Your task to perform on an android device: Open Chrome and go to the settings page Image 0: 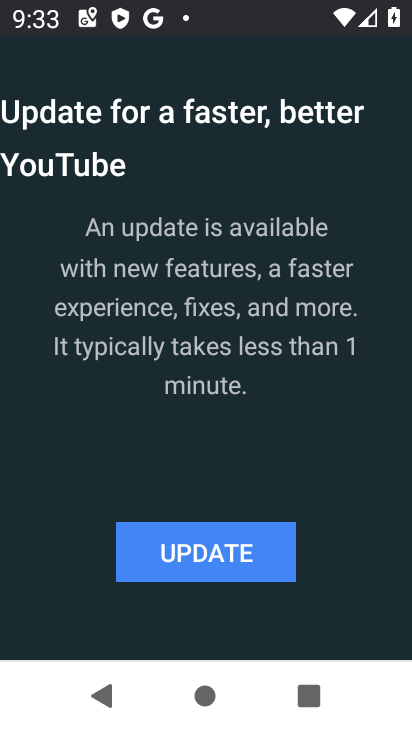
Step 0: press back button
Your task to perform on an android device: Open Chrome and go to the settings page Image 1: 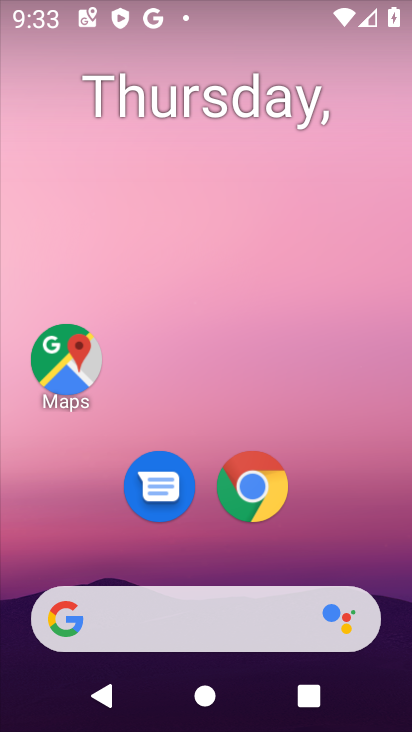
Step 1: click (253, 494)
Your task to perform on an android device: Open Chrome and go to the settings page Image 2: 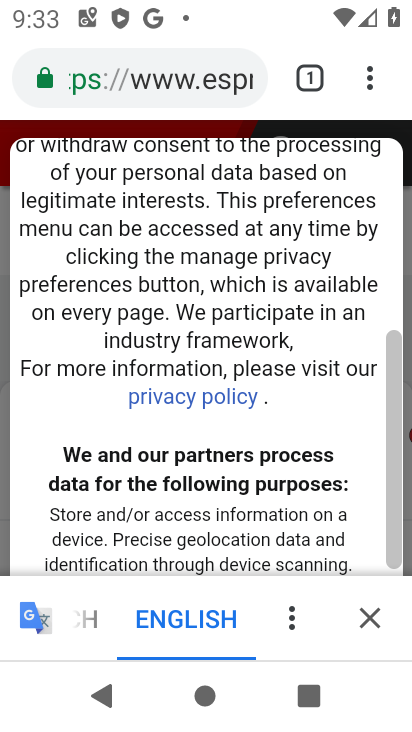
Step 2: click (370, 77)
Your task to perform on an android device: Open Chrome and go to the settings page Image 3: 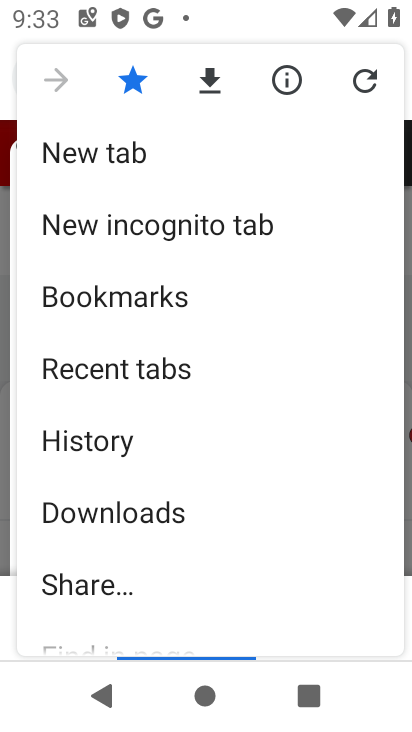
Step 3: drag from (158, 613) to (158, 114)
Your task to perform on an android device: Open Chrome and go to the settings page Image 4: 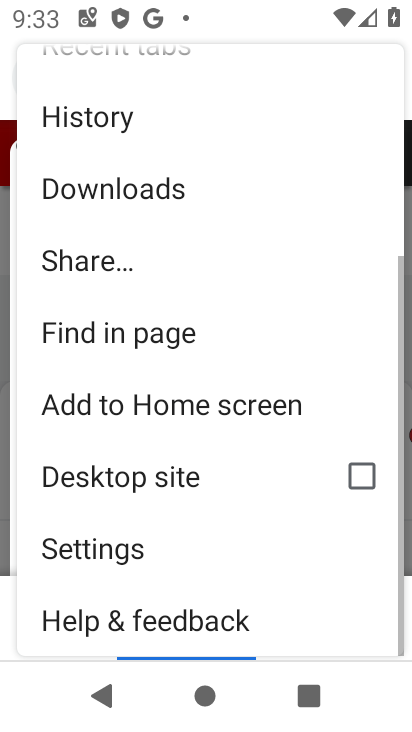
Step 4: click (156, 555)
Your task to perform on an android device: Open Chrome and go to the settings page Image 5: 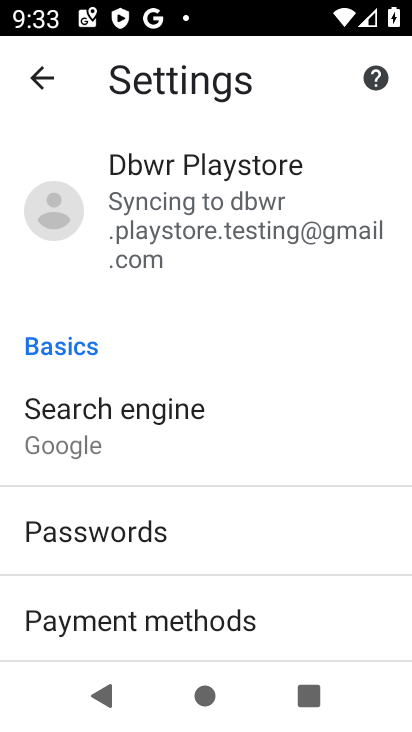
Step 5: task complete